Your task to perform on an android device: see tabs open on other devices in the chrome app Image 0: 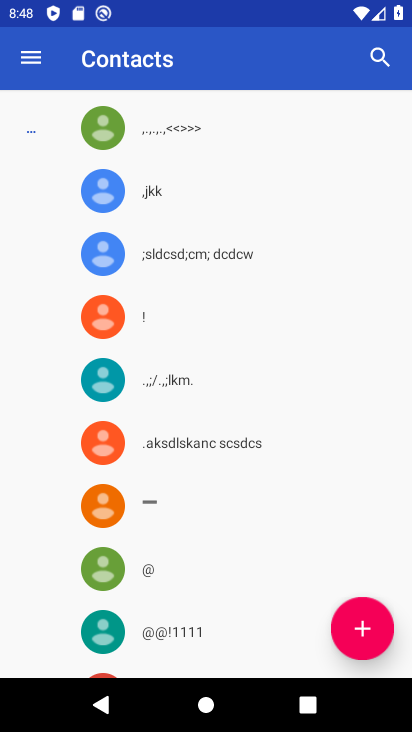
Step 0: press home button
Your task to perform on an android device: see tabs open on other devices in the chrome app Image 1: 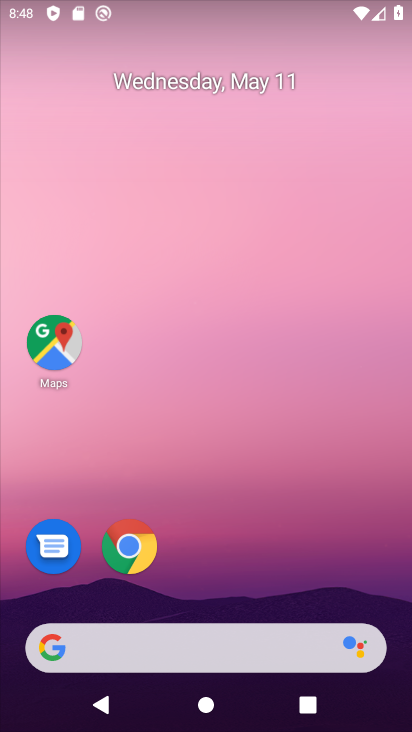
Step 1: drag from (326, 582) to (261, 261)
Your task to perform on an android device: see tabs open on other devices in the chrome app Image 2: 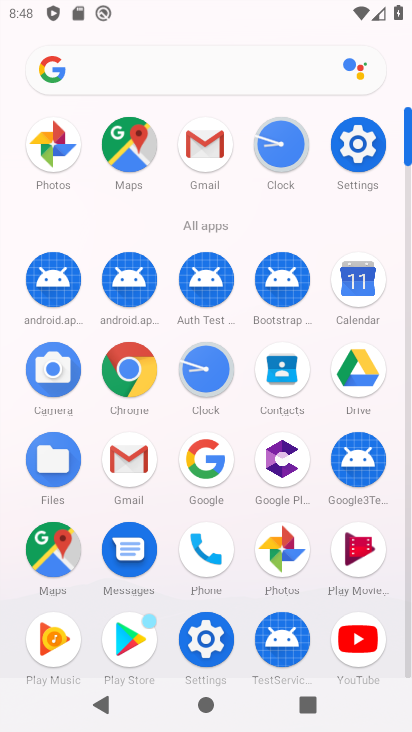
Step 2: click (133, 362)
Your task to perform on an android device: see tabs open on other devices in the chrome app Image 3: 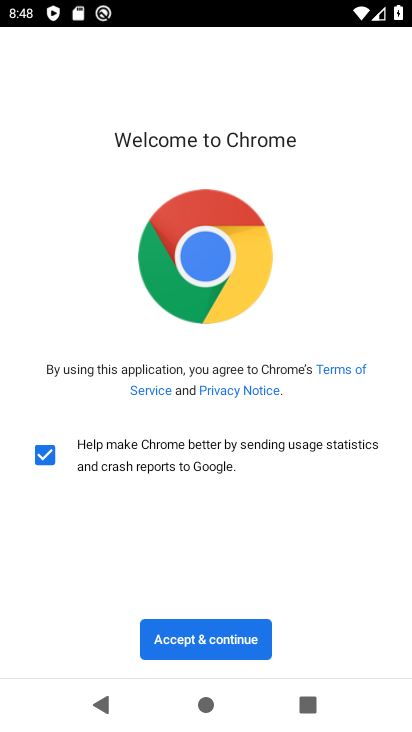
Step 3: click (252, 644)
Your task to perform on an android device: see tabs open on other devices in the chrome app Image 4: 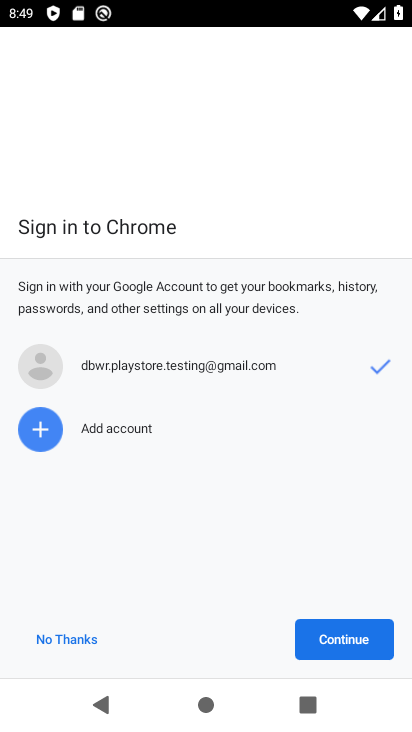
Step 4: click (341, 628)
Your task to perform on an android device: see tabs open on other devices in the chrome app Image 5: 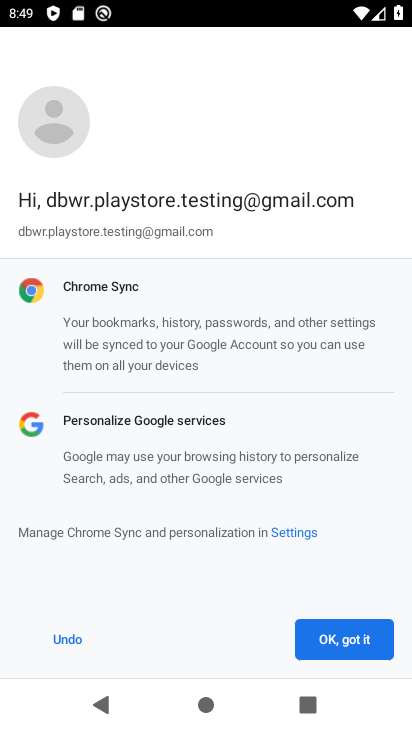
Step 5: click (341, 628)
Your task to perform on an android device: see tabs open on other devices in the chrome app Image 6: 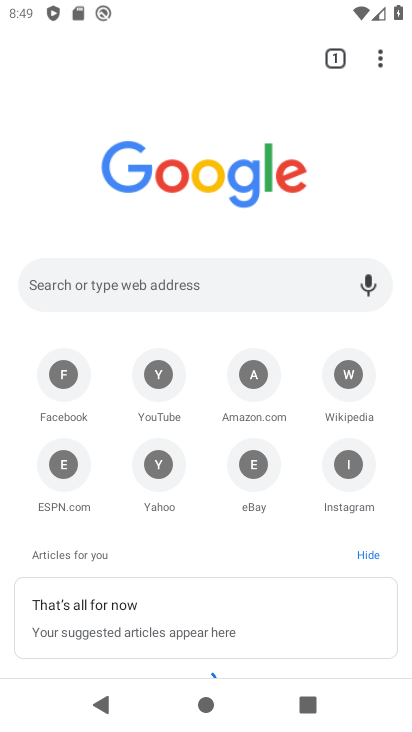
Step 6: click (384, 66)
Your task to perform on an android device: see tabs open on other devices in the chrome app Image 7: 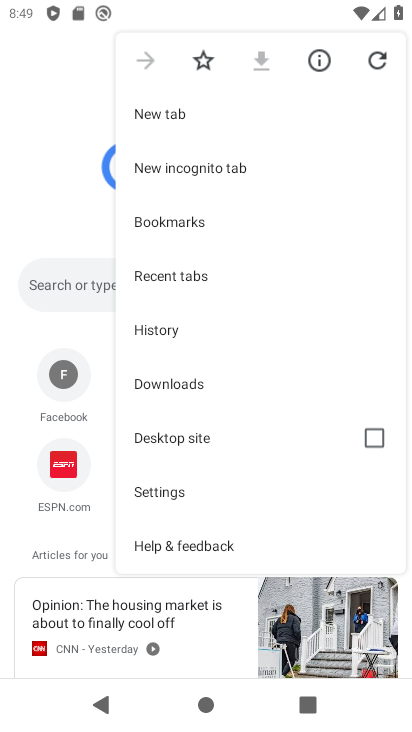
Step 7: click (195, 270)
Your task to perform on an android device: see tabs open on other devices in the chrome app Image 8: 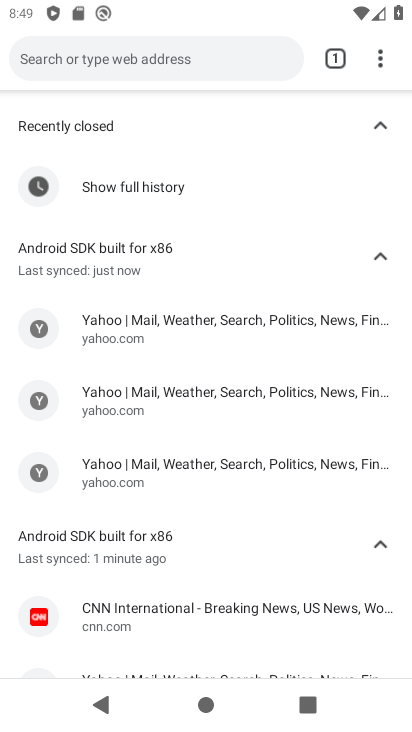
Step 8: task complete